Your task to perform on an android device: stop showing notifications on the lock screen Image 0: 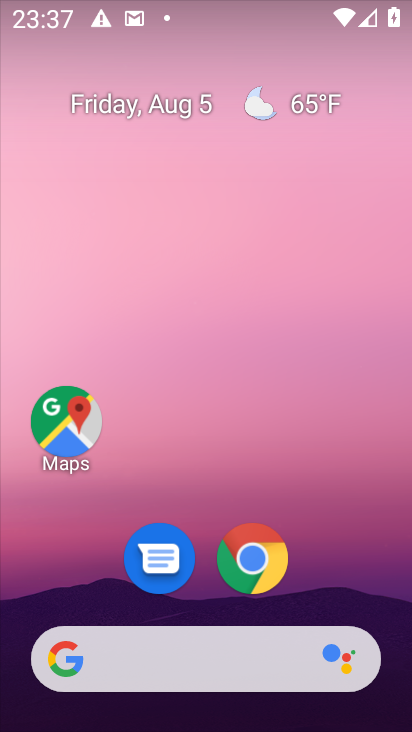
Step 0: press home button
Your task to perform on an android device: stop showing notifications on the lock screen Image 1: 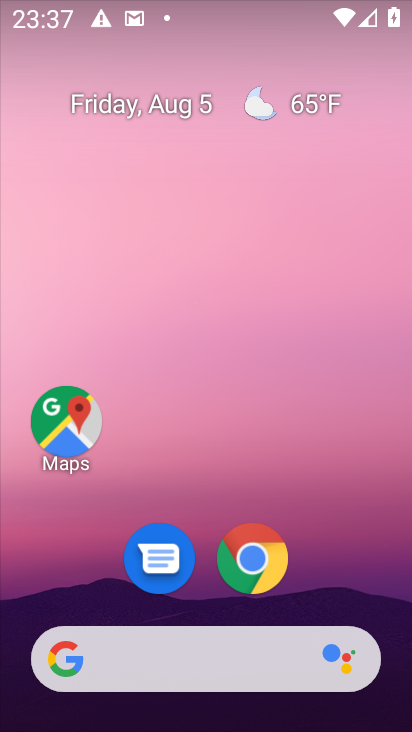
Step 1: drag from (391, 470) to (392, 188)
Your task to perform on an android device: stop showing notifications on the lock screen Image 2: 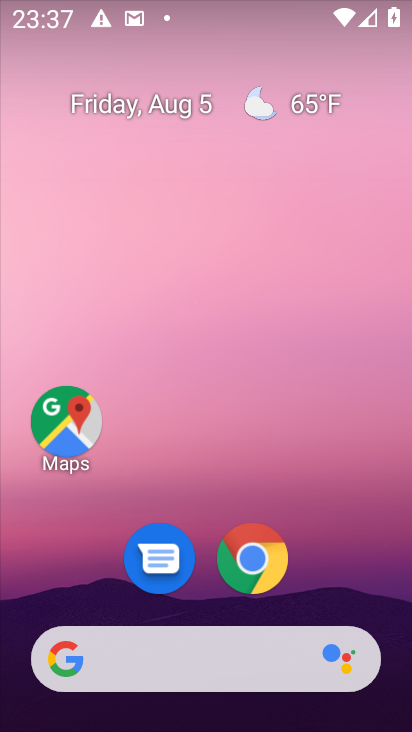
Step 2: drag from (372, 569) to (356, 126)
Your task to perform on an android device: stop showing notifications on the lock screen Image 3: 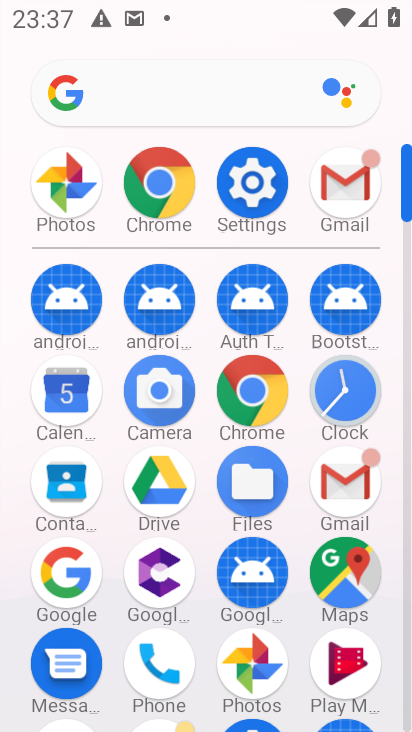
Step 3: click (259, 189)
Your task to perform on an android device: stop showing notifications on the lock screen Image 4: 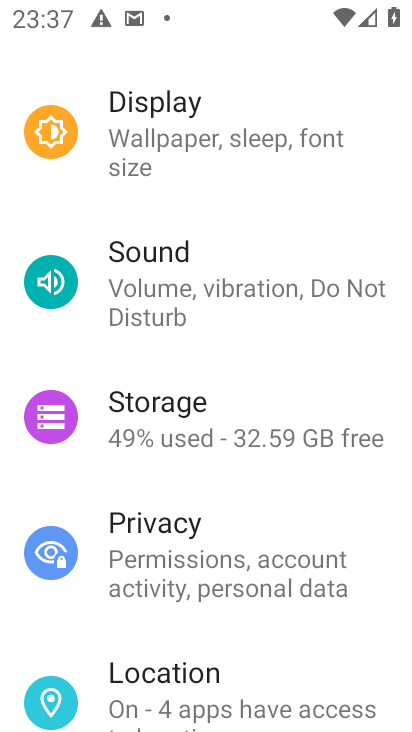
Step 4: drag from (308, 199) to (317, 290)
Your task to perform on an android device: stop showing notifications on the lock screen Image 5: 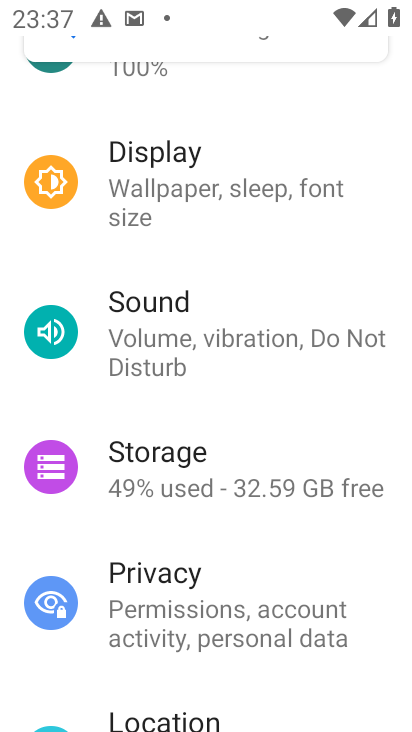
Step 5: drag from (380, 155) to (383, 260)
Your task to perform on an android device: stop showing notifications on the lock screen Image 6: 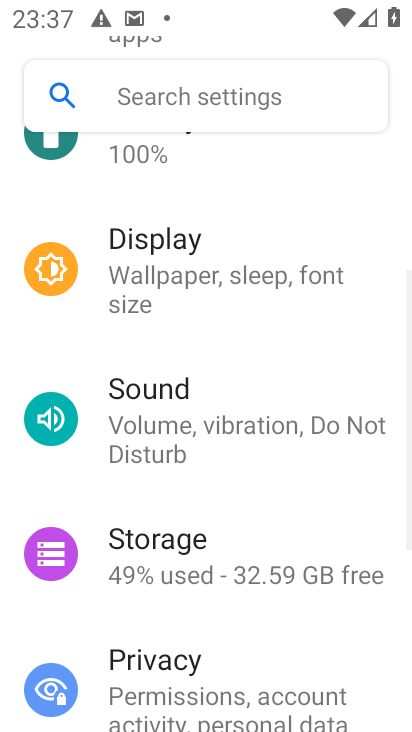
Step 6: drag from (377, 193) to (354, 299)
Your task to perform on an android device: stop showing notifications on the lock screen Image 7: 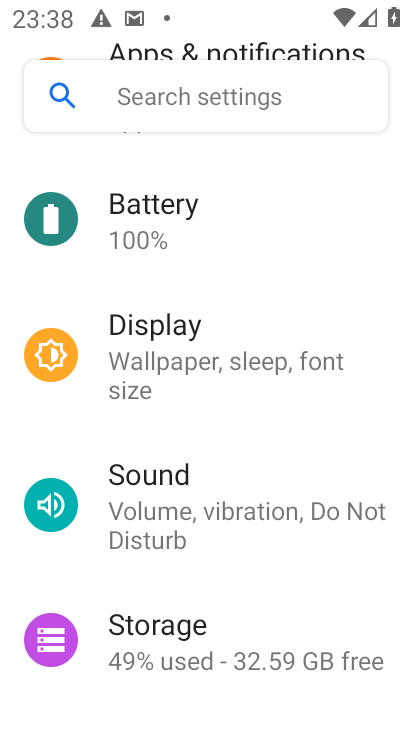
Step 7: drag from (362, 174) to (365, 298)
Your task to perform on an android device: stop showing notifications on the lock screen Image 8: 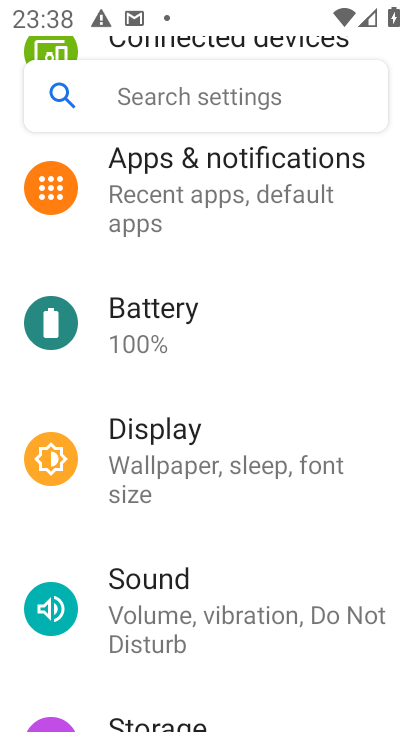
Step 8: drag from (391, 155) to (386, 286)
Your task to perform on an android device: stop showing notifications on the lock screen Image 9: 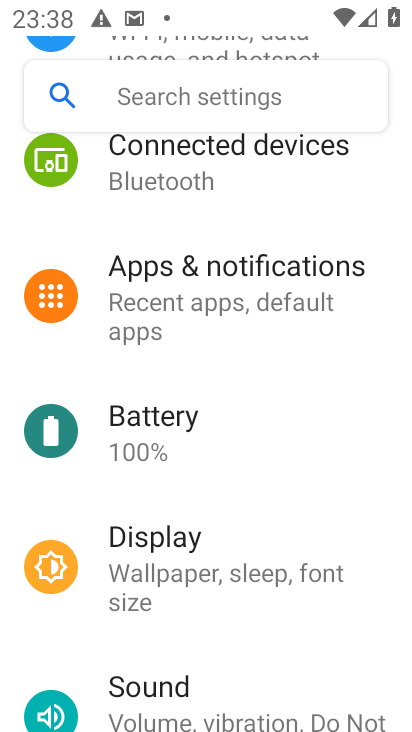
Step 9: drag from (380, 149) to (390, 323)
Your task to perform on an android device: stop showing notifications on the lock screen Image 10: 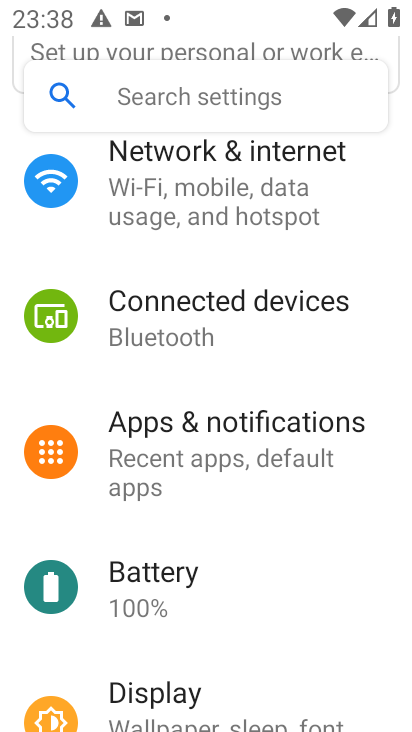
Step 10: drag from (387, 168) to (374, 335)
Your task to perform on an android device: stop showing notifications on the lock screen Image 11: 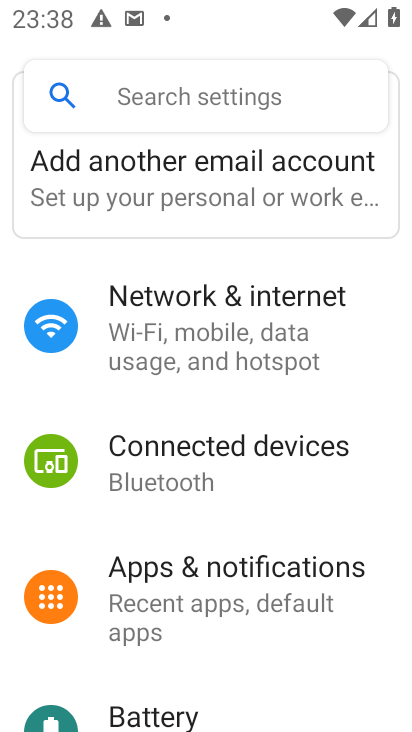
Step 11: click (320, 563)
Your task to perform on an android device: stop showing notifications on the lock screen Image 12: 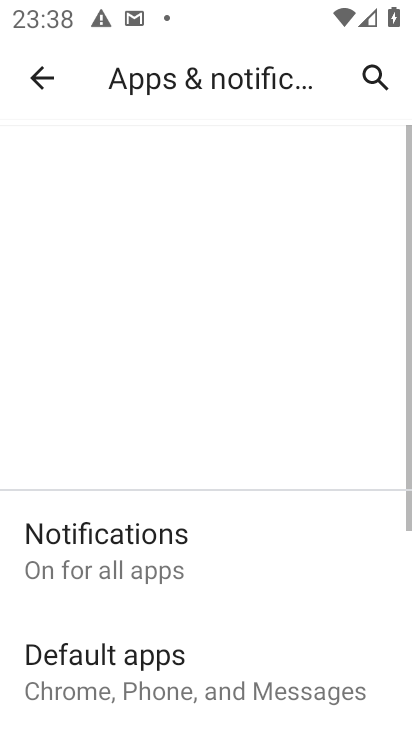
Step 12: drag from (304, 517) to (299, 395)
Your task to perform on an android device: stop showing notifications on the lock screen Image 13: 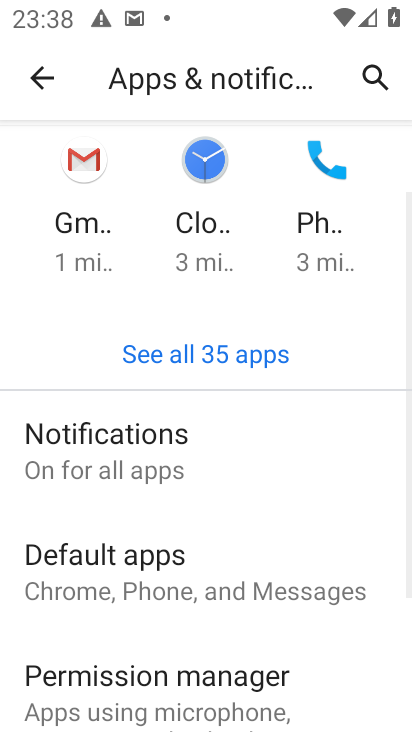
Step 13: click (261, 471)
Your task to perform on an android device: stop showing notifications on the lock screen Image 14: 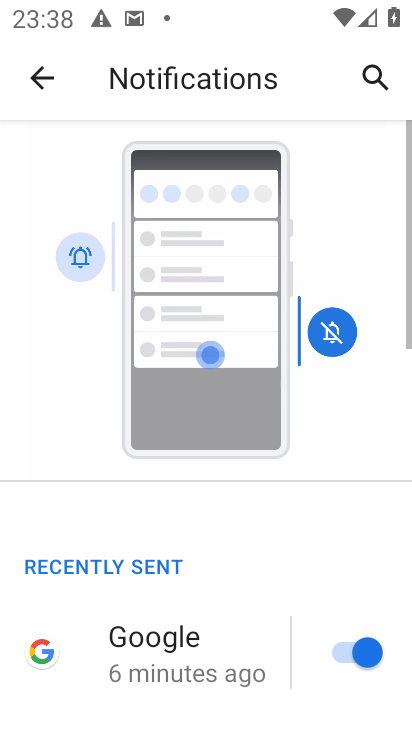
Step 14: drag from (260, 517) to (267, 398)
Your task to perform on an android device: stop showing notifications on the lock screen Image 15: 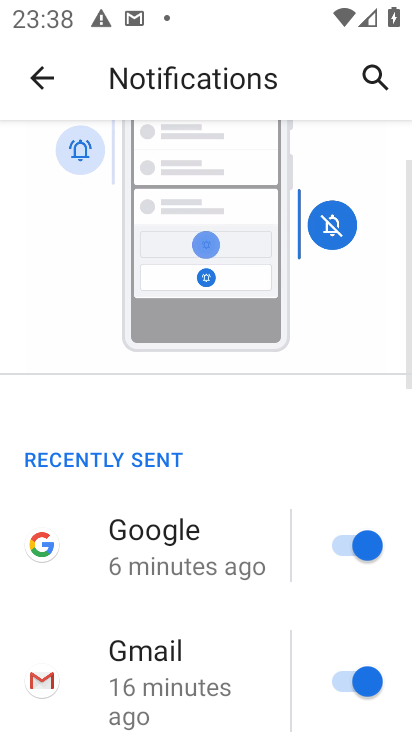
Step 15: drag from (259, 511) to (263, 416)
Your task to perform on an android device: stop showing notifications on the lock screen Image 16: 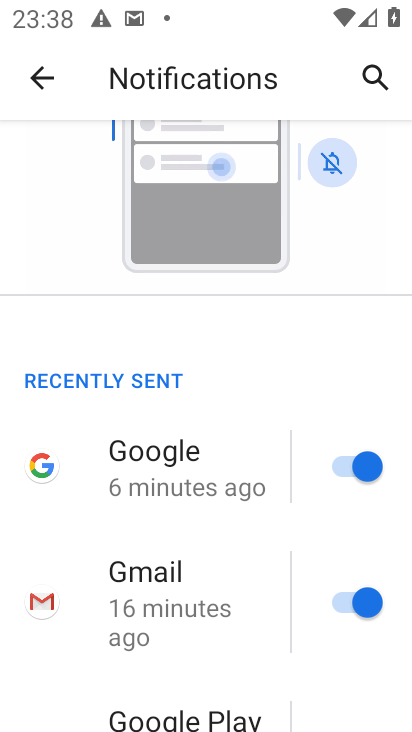
Step 16: drag from (255, 537) to (262, 429)
Your task to perform on an android device: stop showing notifications on the lock screen Image 17: 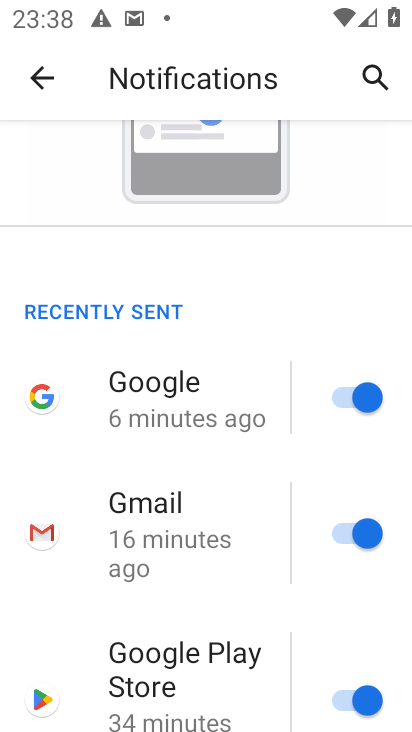
Step 17: drag from (261, 588) to (267, 453)
Your task to perform on an android device: stop showing notifications on the lock screen Image 18: 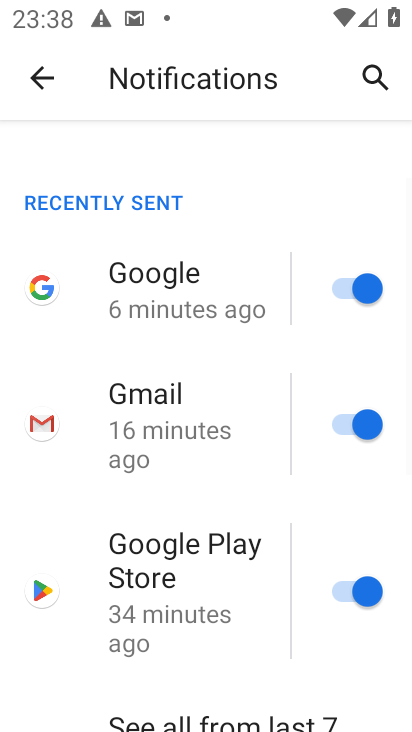
Step 18: drag from (243, 609) to (249, 486)
Your task to perform on an android device: stop showing notifications on the lock screen Image 19: 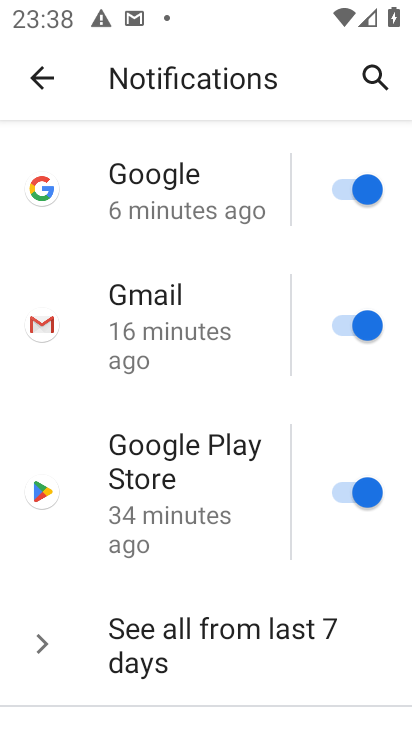
Step 19: drag from (240, 613) to (242, 416)
Your task to perform on an android device: stop showing notifications on the lock screen Image 20: 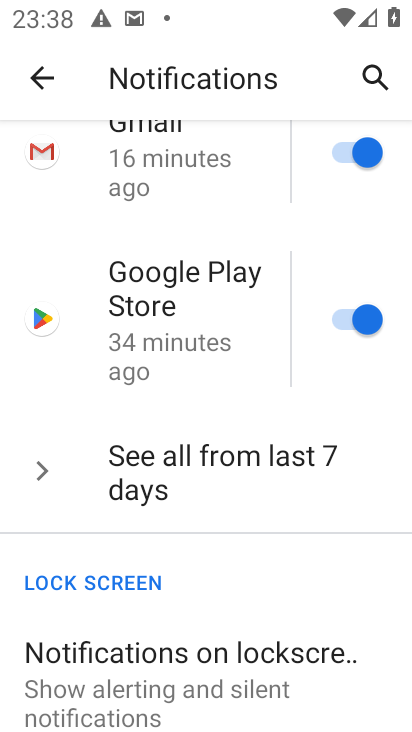
Step 20: drag from (245, 605) to (253, 411)
Your task to perform on an android device: stop showing notifications on the lock screen Image 21: 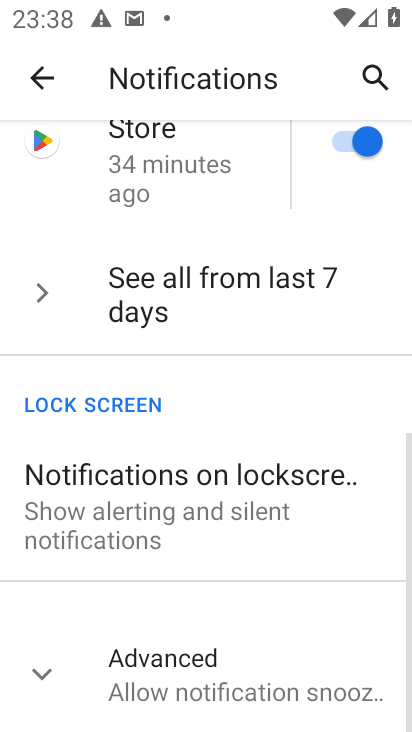
Step 21: click (249, 491)
Your task to perform on an android device: stop showing notifications on the lock screen Image 22: 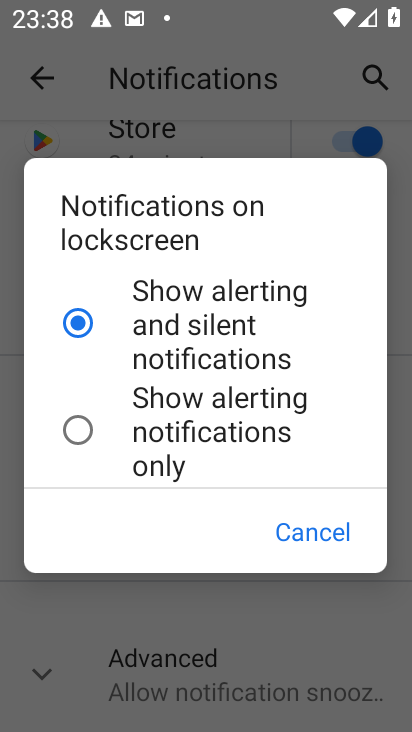
Step 22: drag from (195, 440) to (207, 304)
Your task to perform on an android device: stop showing notifications on the lock screen Image 23: 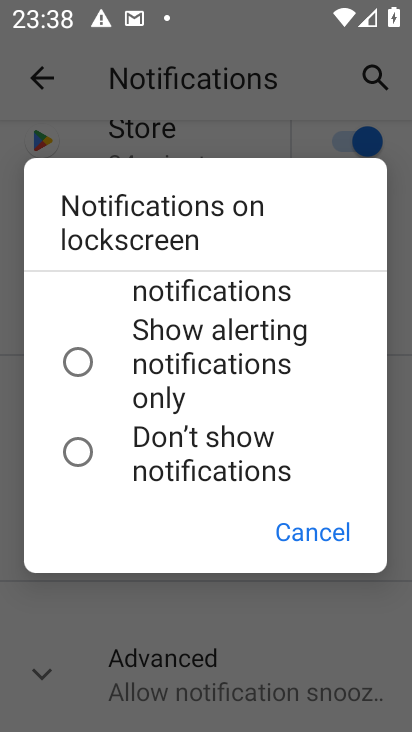
Step 23: click (187, 456)
Your task to perform on an android device: stop showing notifications on the lock screen Image 24: 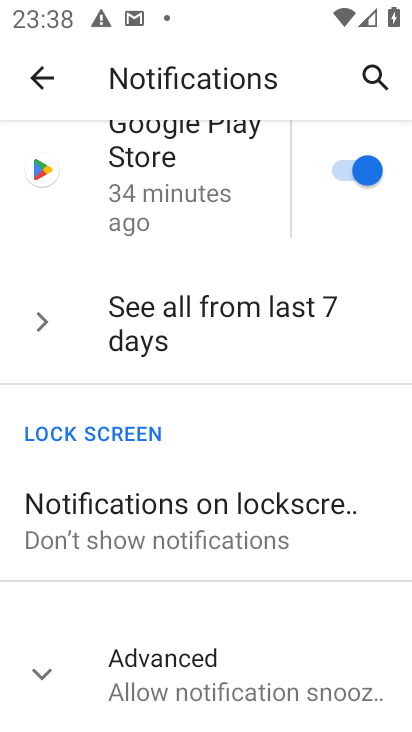
Step 24: task complete